Your task to perform on an android device: Search for Mexican restaurants on Maps Image 0: 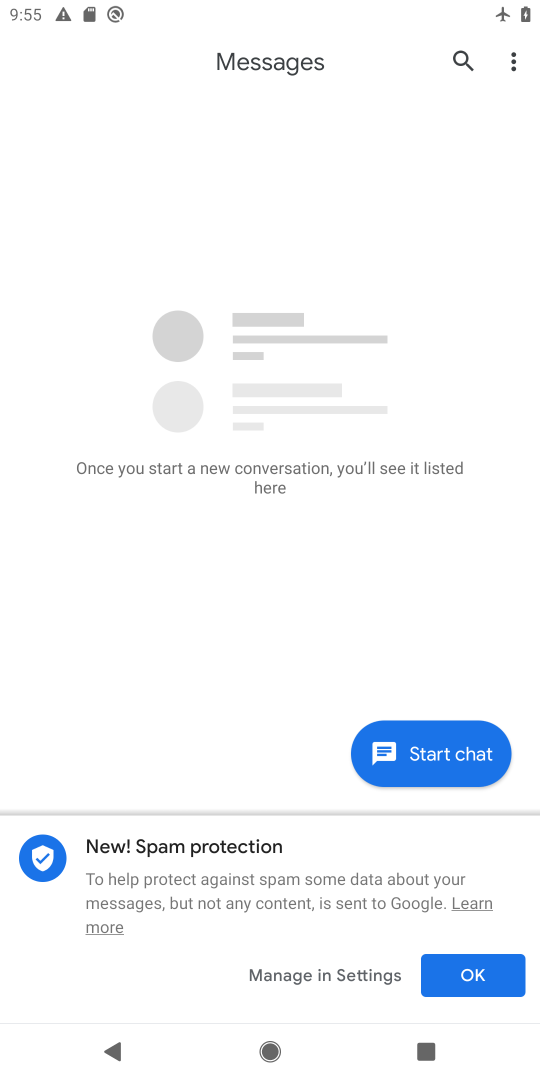
Step 0: press home button
Your task to perform on an android device: Search for Mexican restaurants on Maps Image 1: 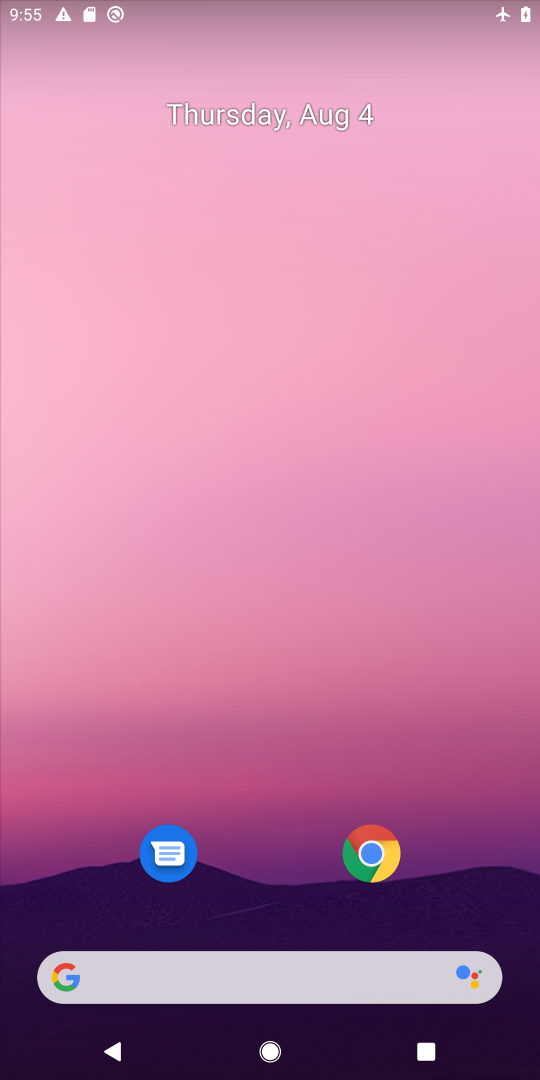
Step 1: drag from (218, 892) to (341, 158)
Your task to perform on an android device: Search for Mexican restaurants on Maps Image 2: 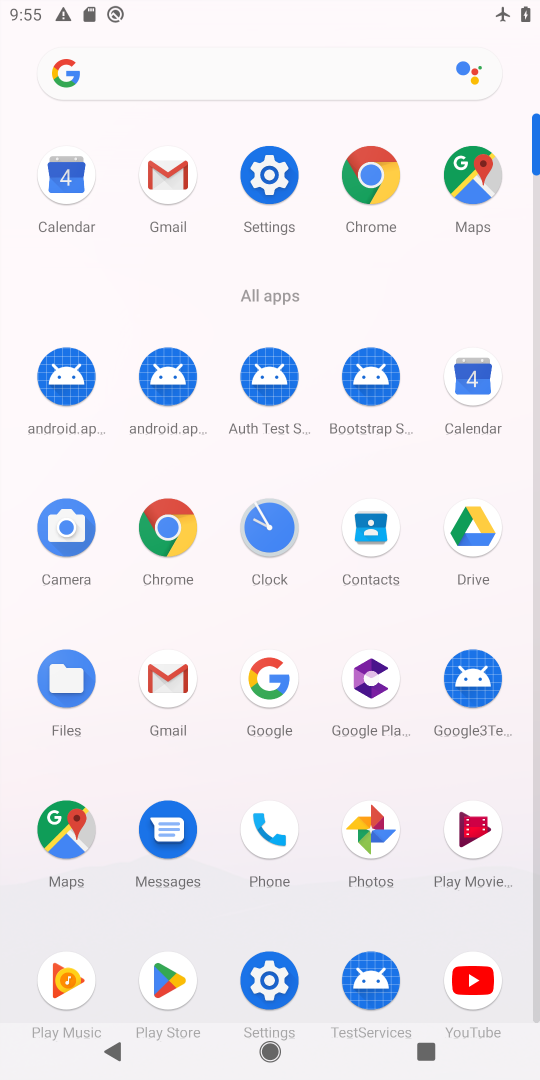
Step 2: click (63, 825)
Your task to perform on an android device: Search for Mexican restaurants on Maps Image 3: 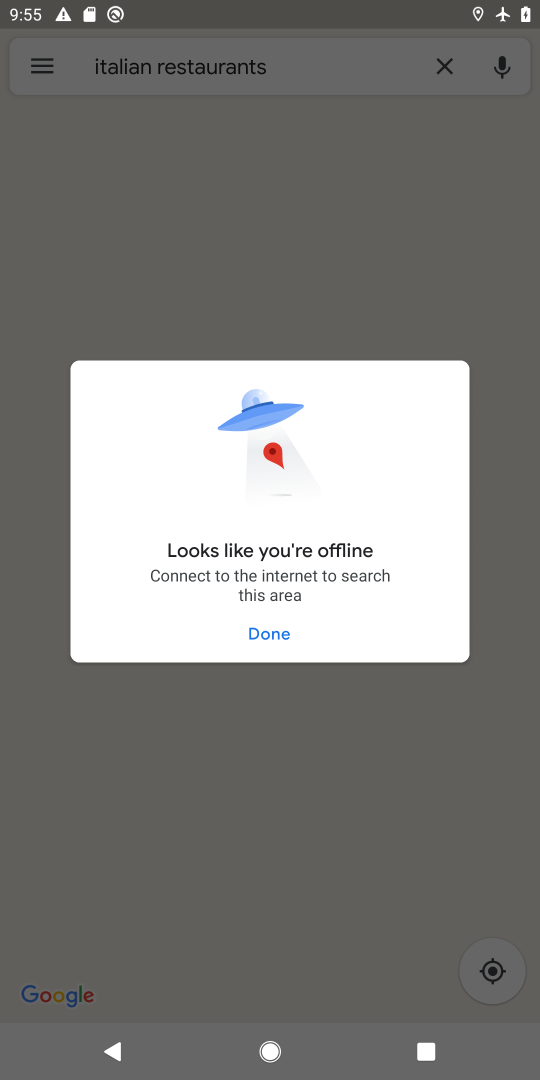
Step 3: click (267, 632)
Your task to perform on an android device: Search for Mexican restaurants on Maps Image 4: 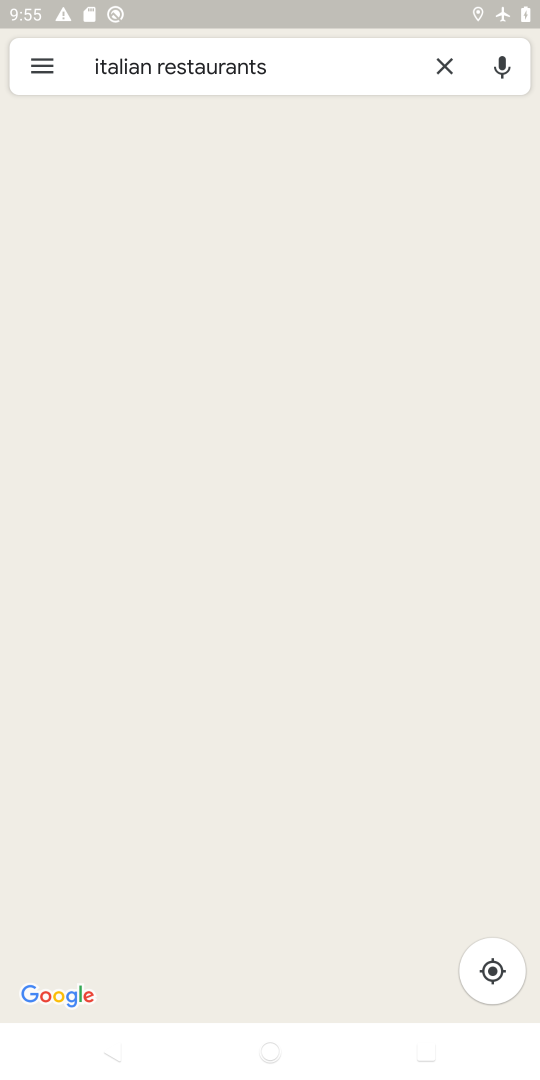
Step 4: click (259, 52)
Your task to perform on an android device: Search for Mexican restaurants on Maps Image 5: 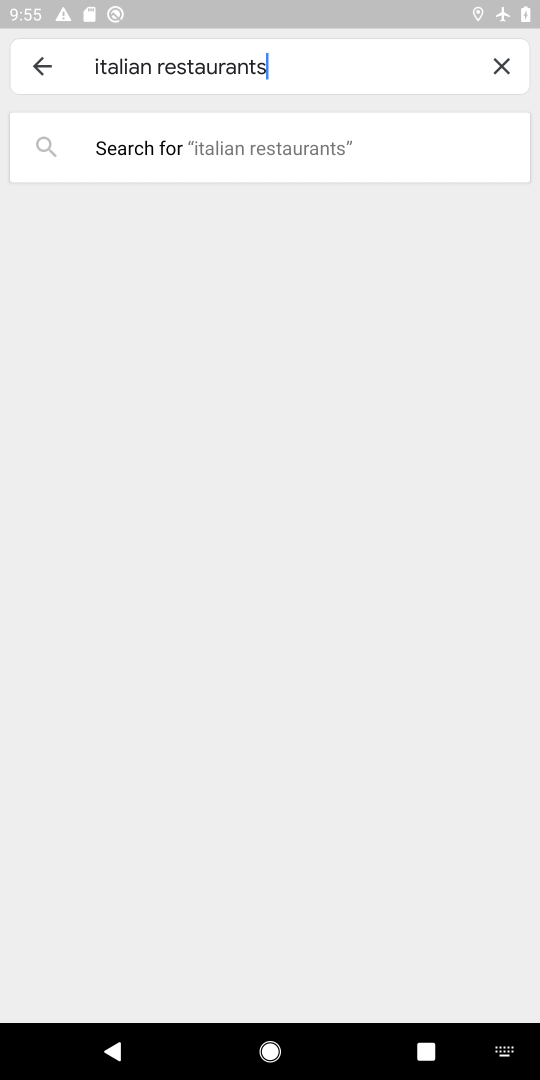
Step 5: click (504, 61)
Your task to perform on an android device: Search for Mexican restaurants on Maps Image 6: 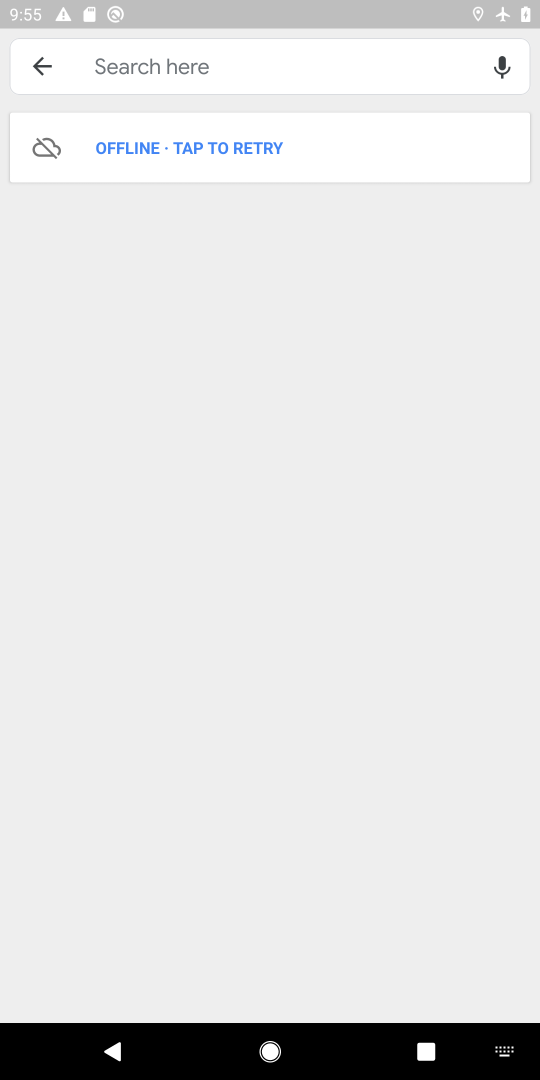
Step 6: type "mexican restaurants"
Your task to perform on an android device: Search for Mexican restaurants on Maps Image 7: 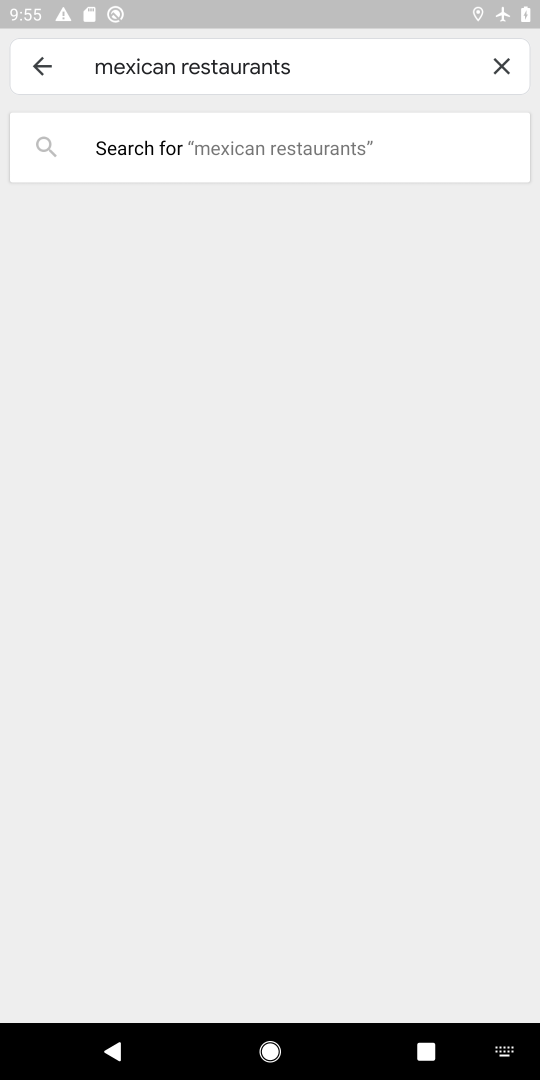
Step 7: click (243, 145)
Your task to perform on an android device: Search for Mexican restaurants on Maps Image 8: 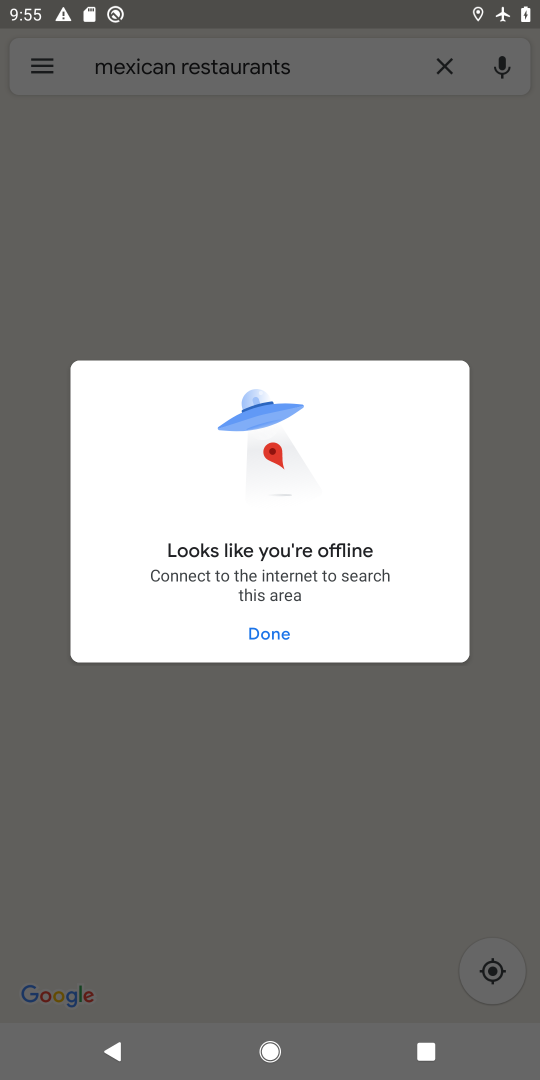
Step 8: click (241, 627)
Your task to perform on an android device: Search for Mexican restaurants on Maps Image 9: 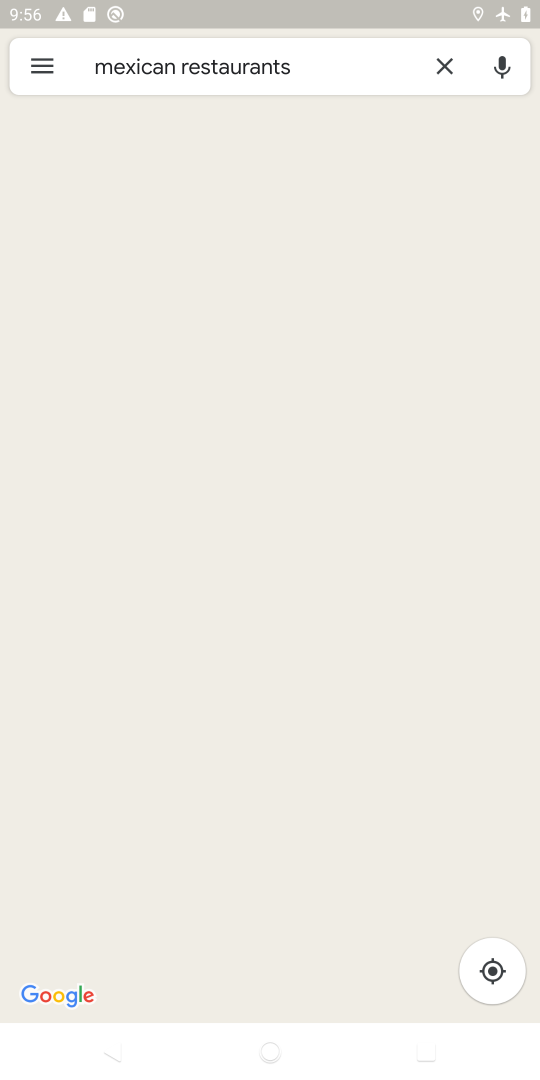
Step 9: task complete